Your task to perform on an android device: find photos in the google photos app Image 0: 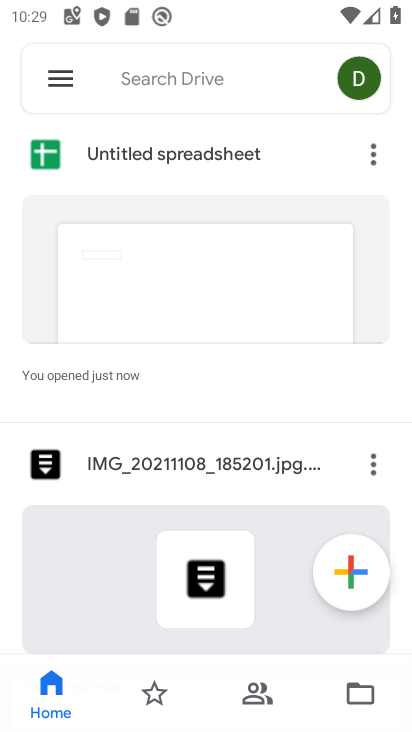
Step 0: click (63, 689)
Your task to perform on an android device: find photos in the google photos app Image 1: 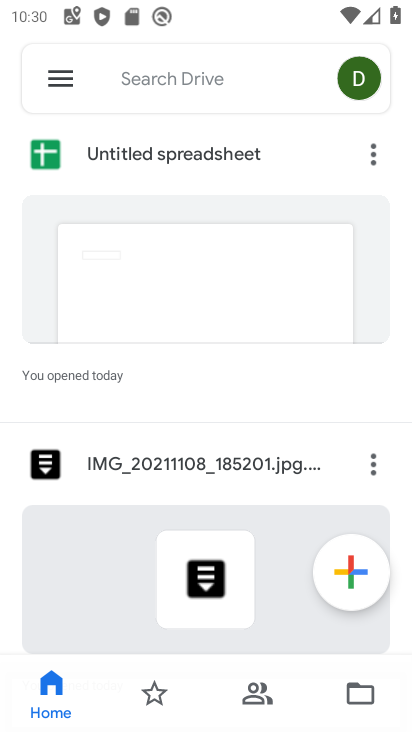
Step 1: task complete